Your task to perform on an android device: clear history in the chrome app Image 0: 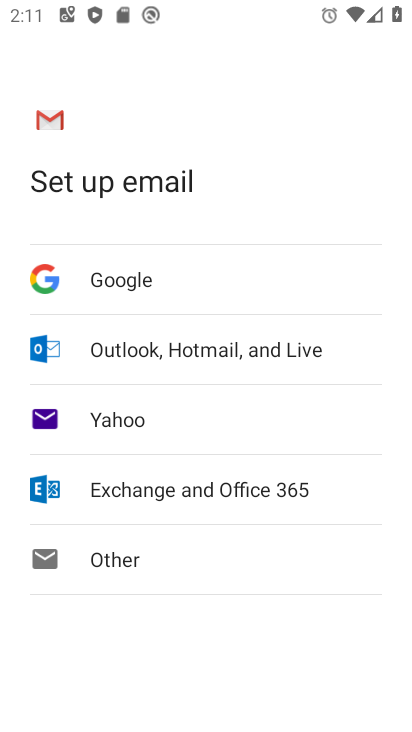
Step 0: press home button
Your task to perform on an android device: clear history in the chrome app Image 1: 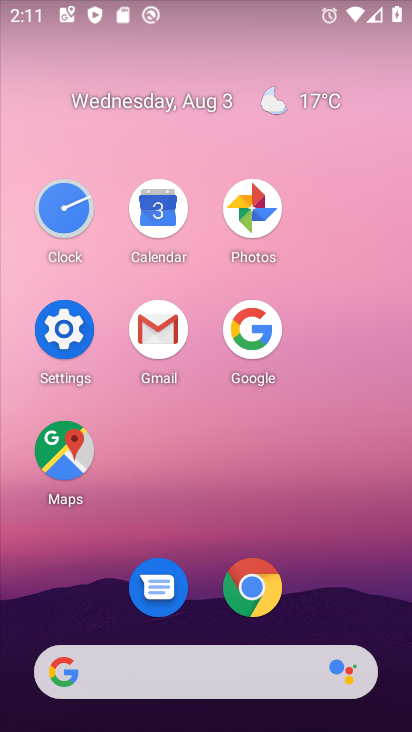
Step 1: click (274, 593)
Your task to perform on an android device: clear history in the chrome app Image 2: 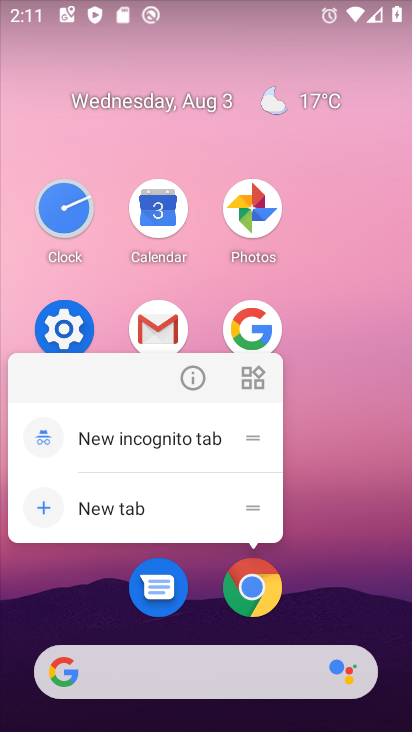
Step 2: click (238, 587)
Your task to perform on an android device: clear history in the chrome app Image 3: 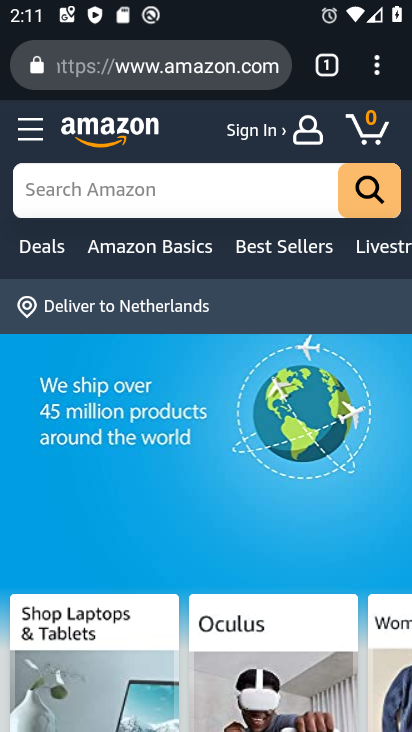
Step 3: click (373, 56)
Your task to perform on an android device: clear history in the chrome app Image 4: 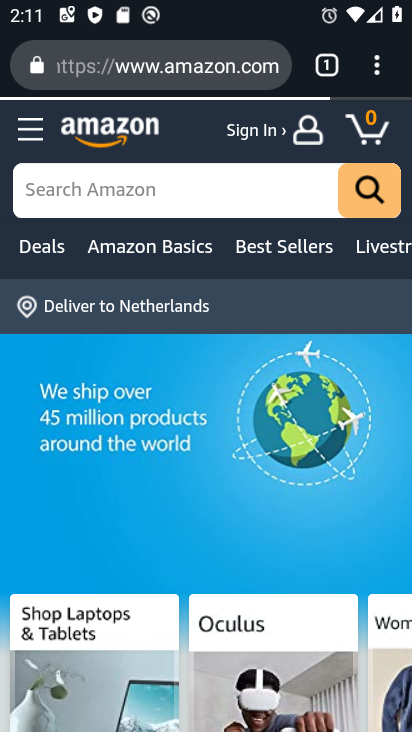
Step 4: click (379, 72)
Your task to perform on an android device: clear history in the chrome app Image 5: 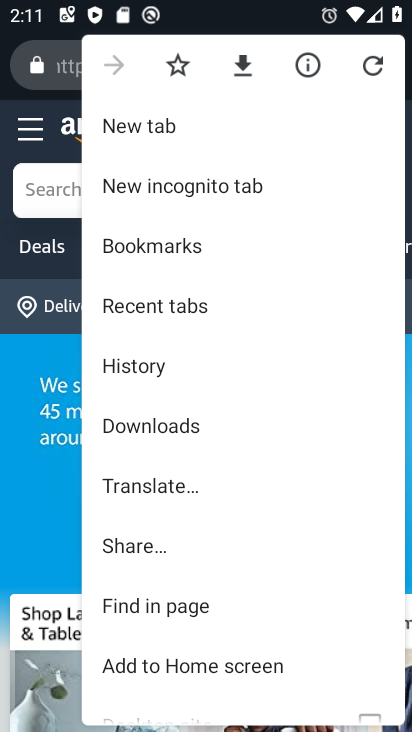
Step 5: drag from (258, 563) to (245, 261)
Your task to perform on an android device: clear history in the chrome app Image 6: 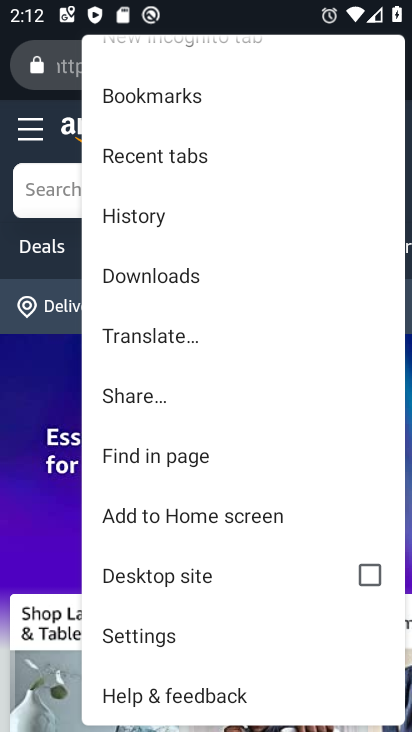
Step 6: click (190, 627)
Your task to perform on an android device: clear history in the chrome app Image 7: 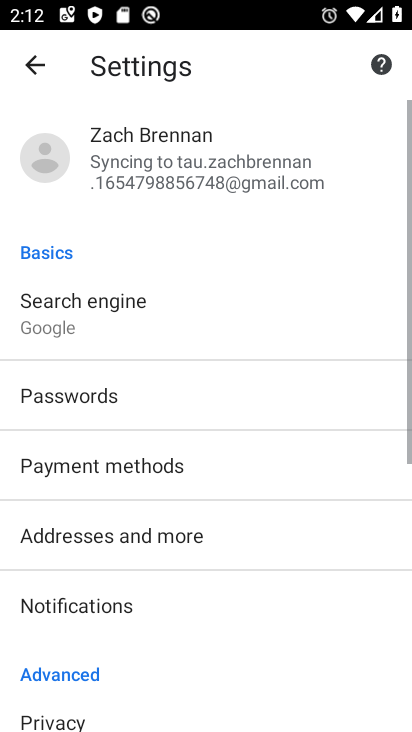
Step 7: drag from (129, 618) to (178, 251)
Your task to perform on an android device: clear history in the chrome app Image 8: 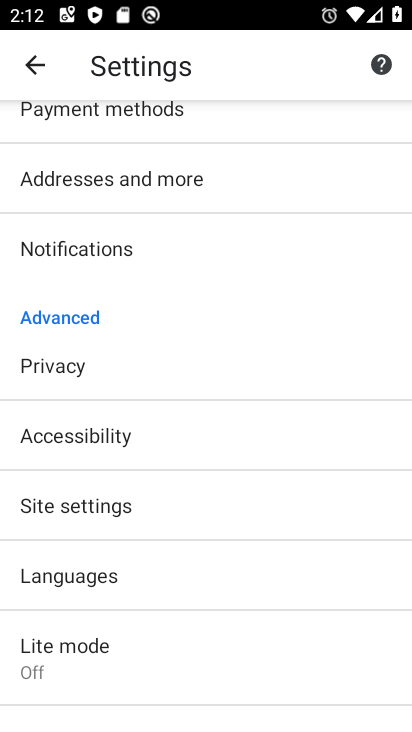
Step 8: drag from (123, 539) to (163, 286)
Your task to perform on an android device: clear history in the chrome app Image 9: 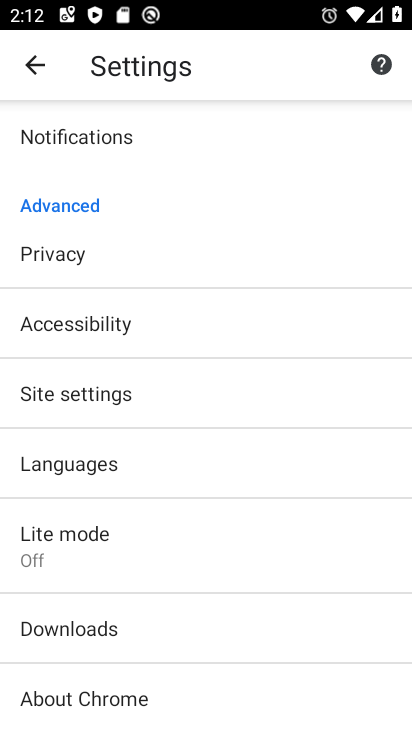
Step 9: click (138, 224)
Your task to perform on an android device: clear history in the chrome app Image 10: 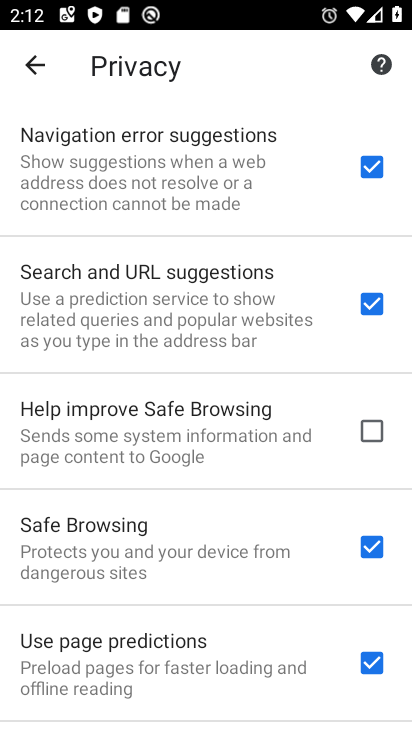
Step 10: drag from (200, 512) to (184, 197)
Your task to perform on an android device: clear history in the chrome app Image 11: 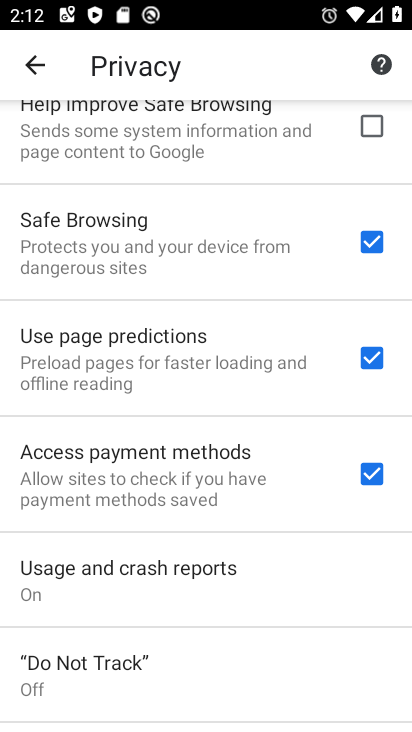
Step 11: drag from (232, 617) to (249, 263)
Your task to perform on an android device: clear history in the chrome app Image 12: 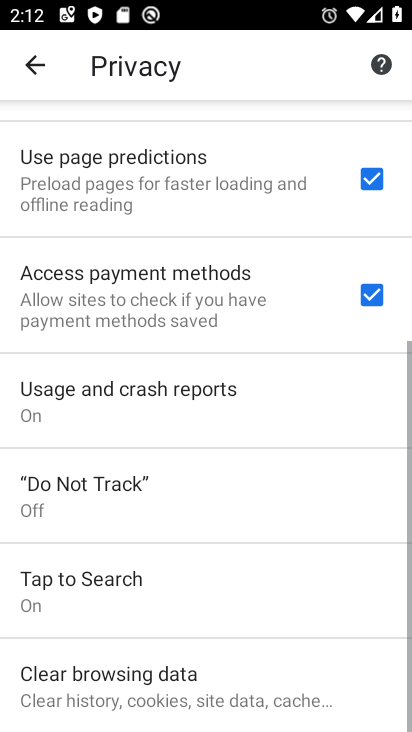
Step 12: click (203, 695)
Your task to perform on an android device: clear history in the chrome app Image 13: 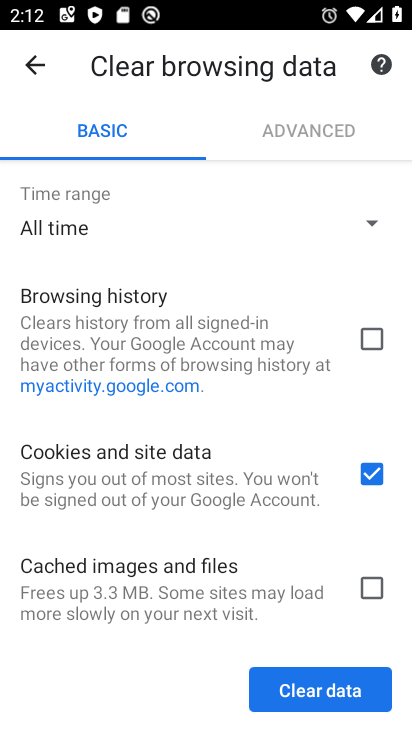
Step 13: drag from (161, 565) to (168, 318)
Your task to perform on an android device: clear history in the chrome app Image 14: 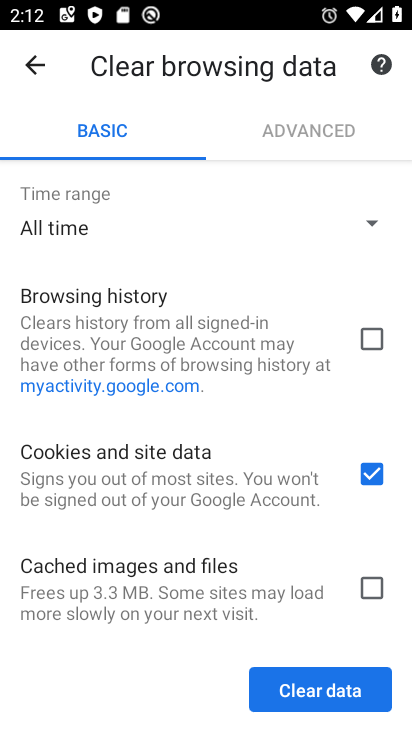
Step 14: click (369, 343)
Your task to perform on an android device: clear history in the chrome app Image 15: 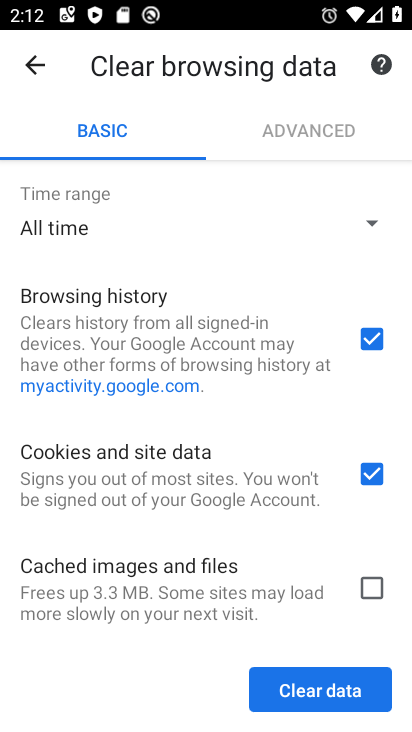
Step 15: click (325, 692)
Your task to perform on an android device: clear history in the chrome app Image 16: 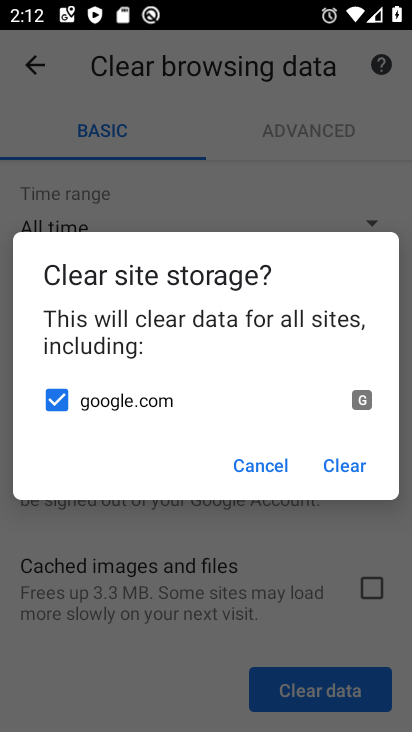
Step 16: click (361, 466)
Your task to perform on an android device: clear history in the chrome app Image 17: 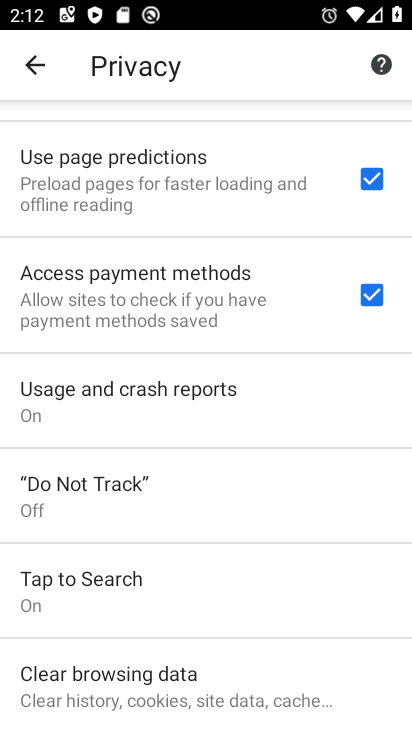
Step 17: task complete